Your task to perform on an android device: Go to privacy settings Image 0: 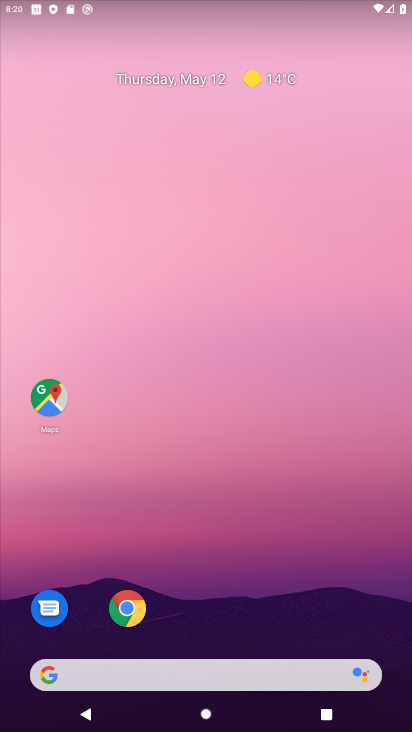
Step 0: click (262, 307)
Your task to perform on an android device: Go to privacy settings Image 1: 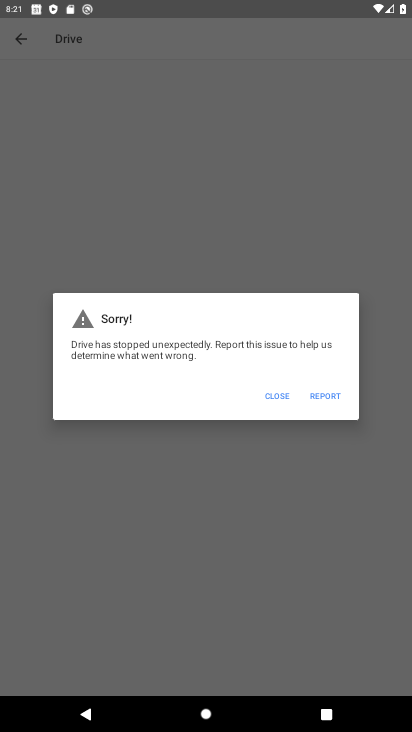
Step 1: press home button
Your task to perform on an android device: Go to privacy settings Image 2: 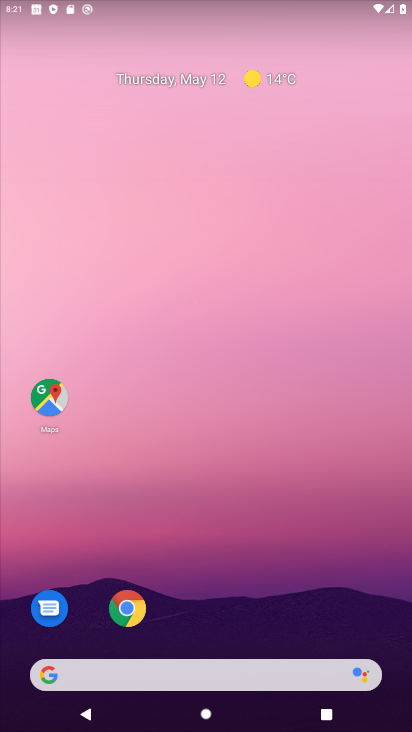
Step 2: drag from (187, 657) to (282, 250)
Your task to perform on an android device: Go to privacy settings Image 3: 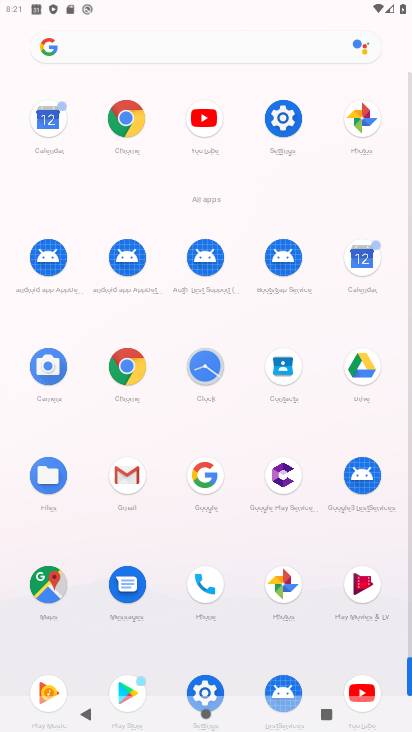
Step 3: click (286, 128)
Your task to perform on an android device: Go to privacy settings Image 4: 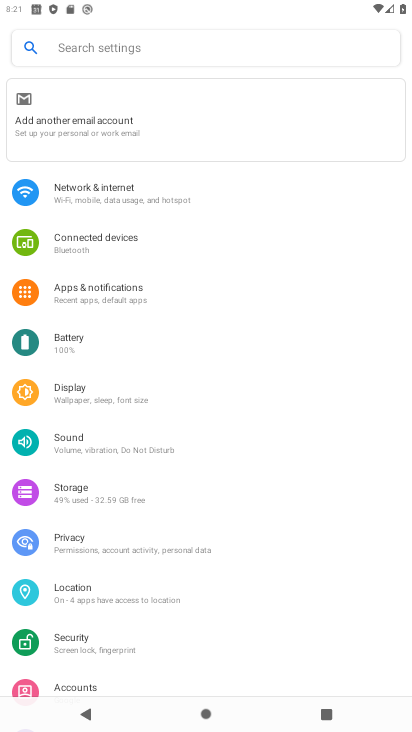
Step 4: click (130, 547)
Your task to perform on an android device: Go to privacy settings Image 5: 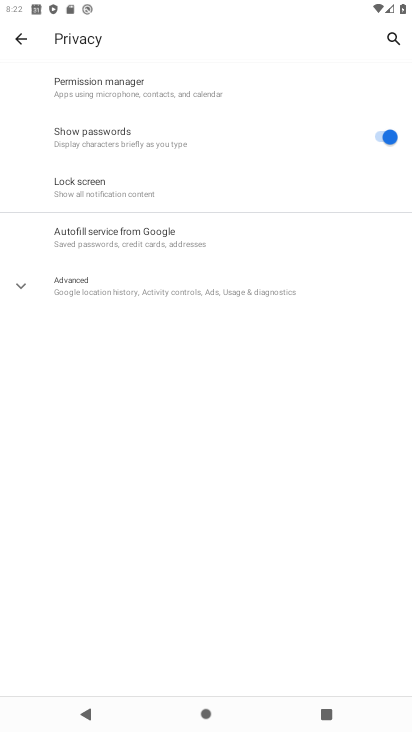
Step 5: click (171, 288)
Your task to perform on an android device: Go to privacy settings Image 6: 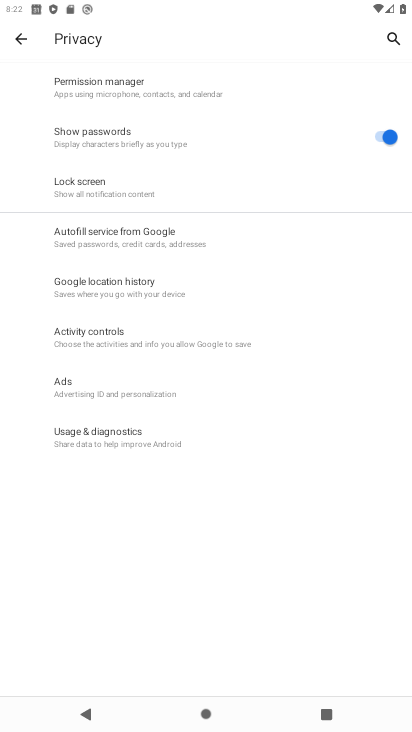
Step 6: task complete